Your task to perform on an android device: Go to Yahoo.com Image 0: 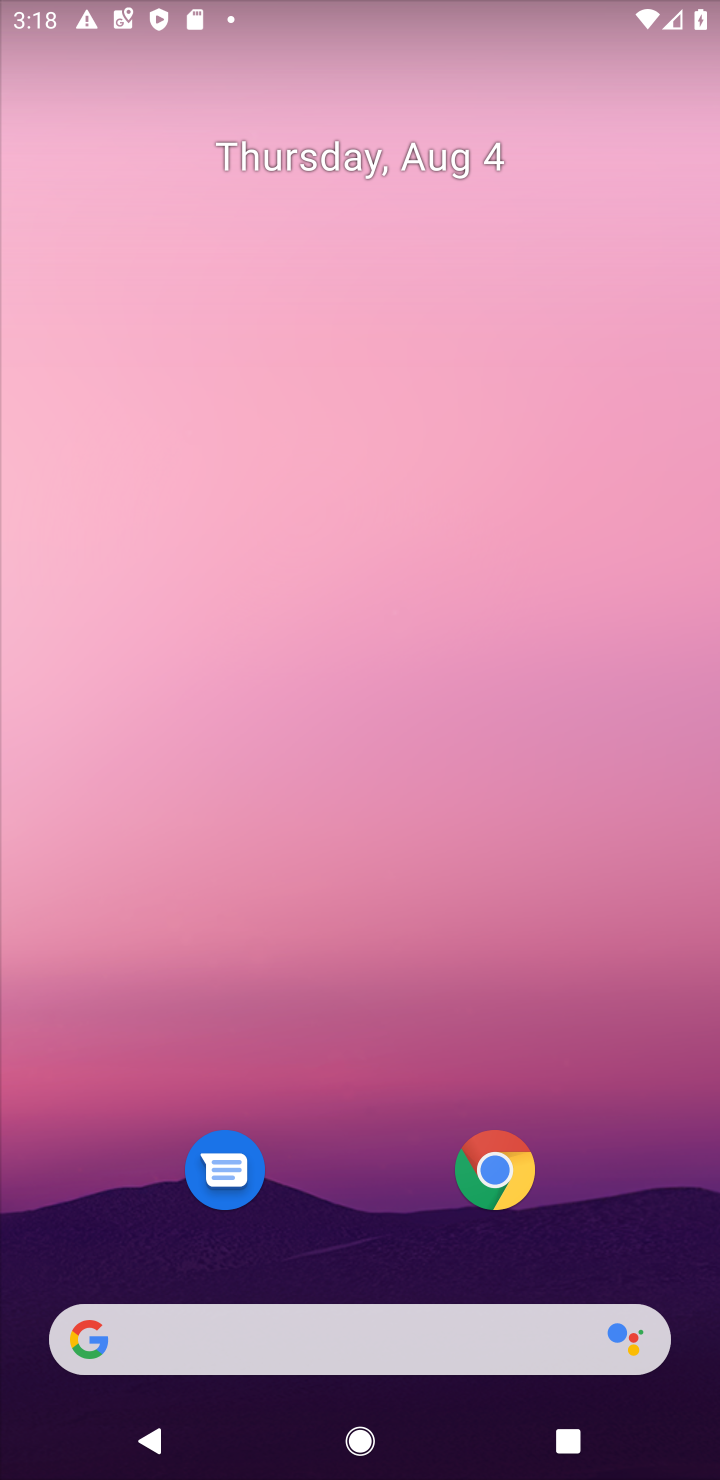
Step 0: click (499, 1164)
Your task to perform on an android device: Go to Yahoo.com Image 1: 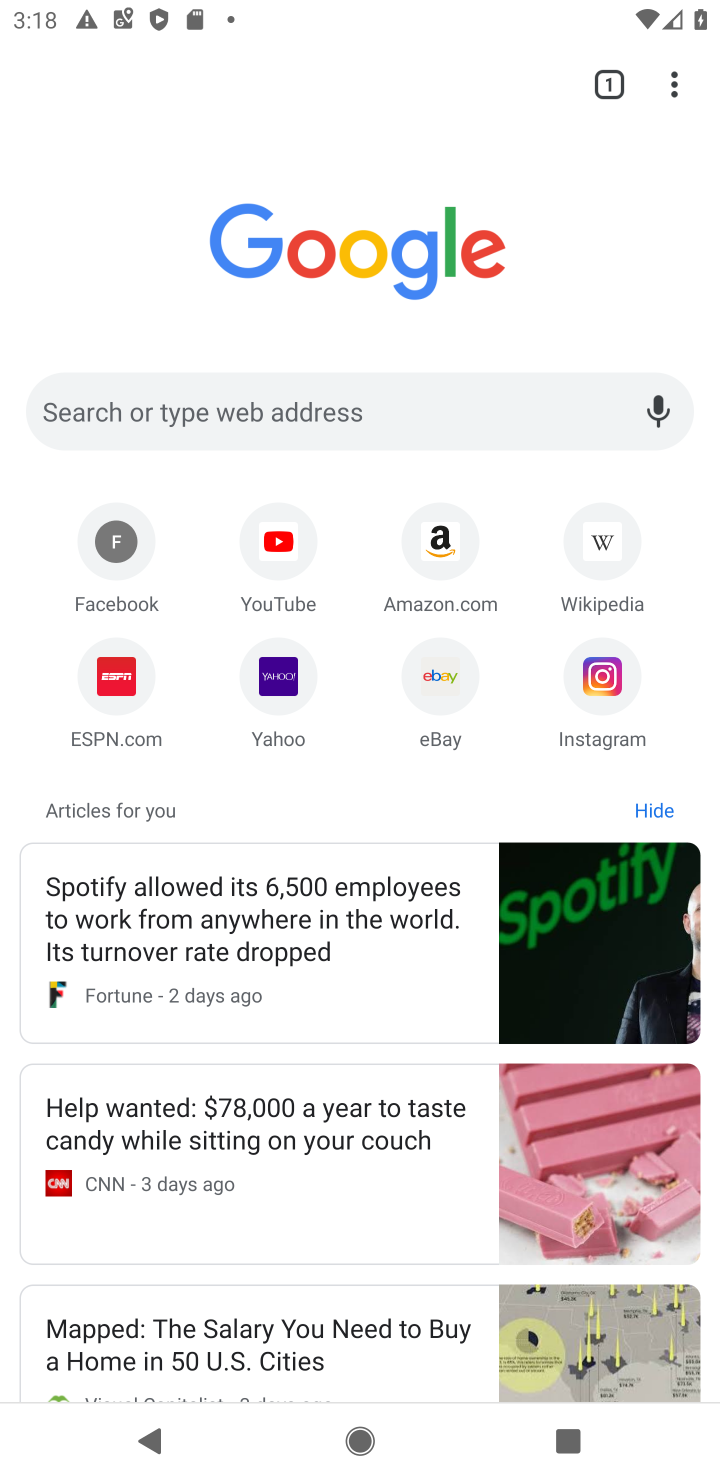
Step 1: click (262, 407)
Your task to perform on an android device: Go to Yahoo.com Image 2: 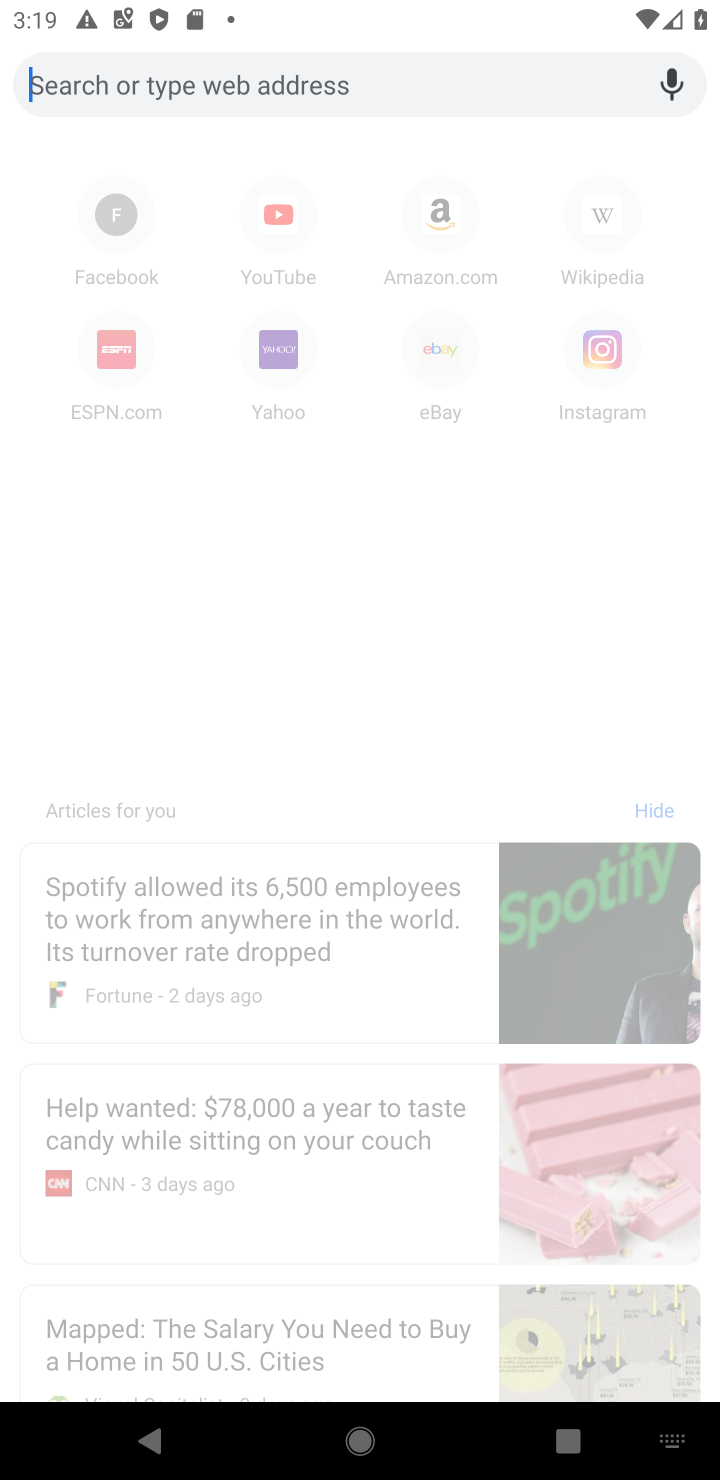
Step 2: type "yahoo.com"
Your task to perform on an android device: Go to Yahoo.com Image 3: 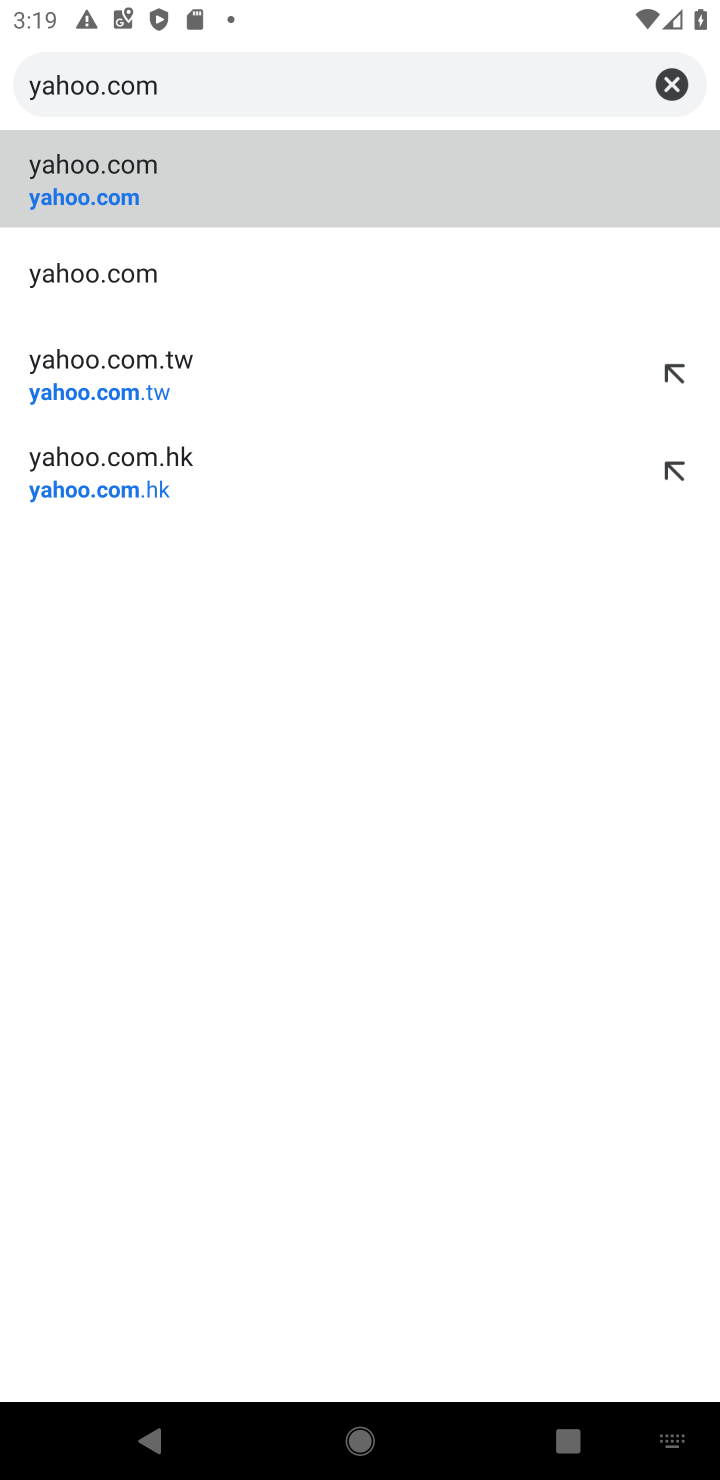
Step 3: click (78, 145)
Your task to perform on an android device: Go to Yahoo.com Image 4: 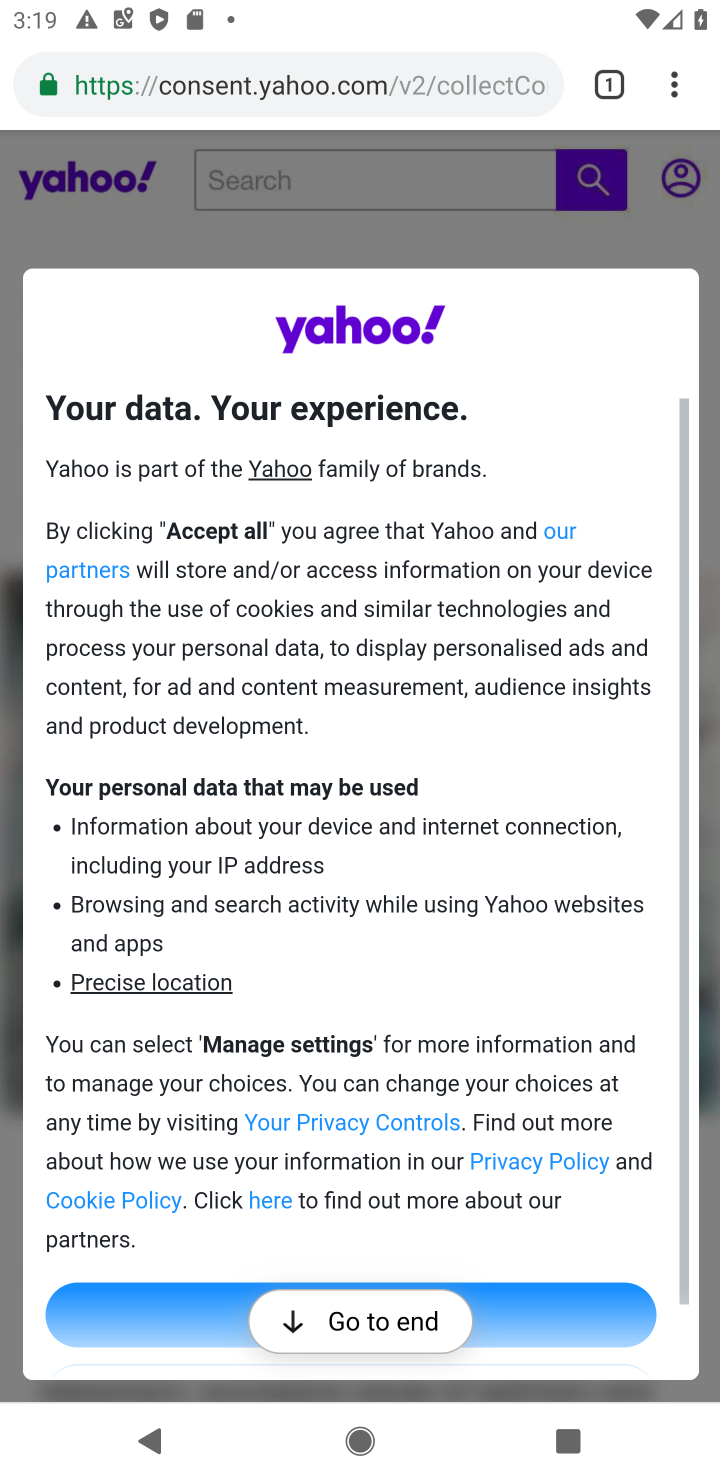
Step 4: click (284, 1317)
Your task to perform on an android device: Go to Yahoo.com Image 5: 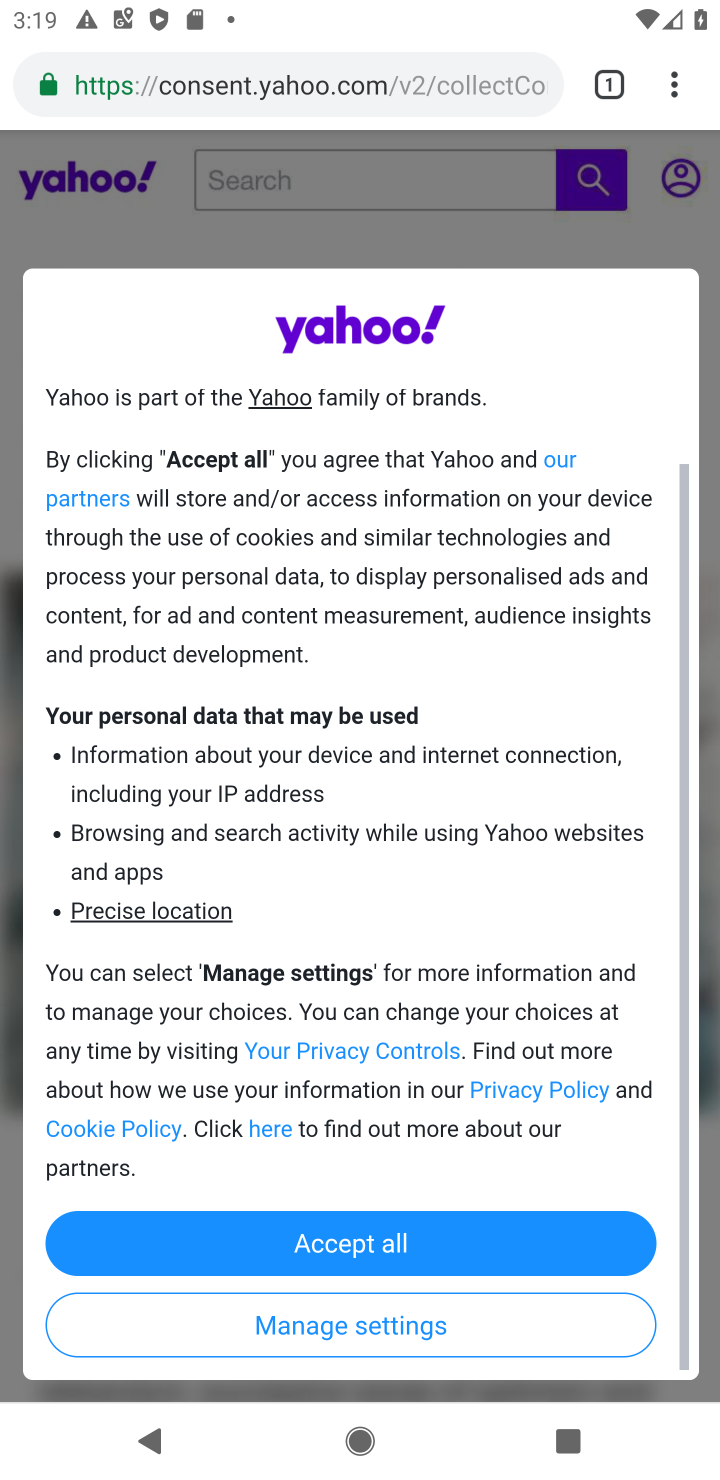
Step 5: click (348, 1231)
Your task to perform on an android device: Go to Yahoo.com Image 6: 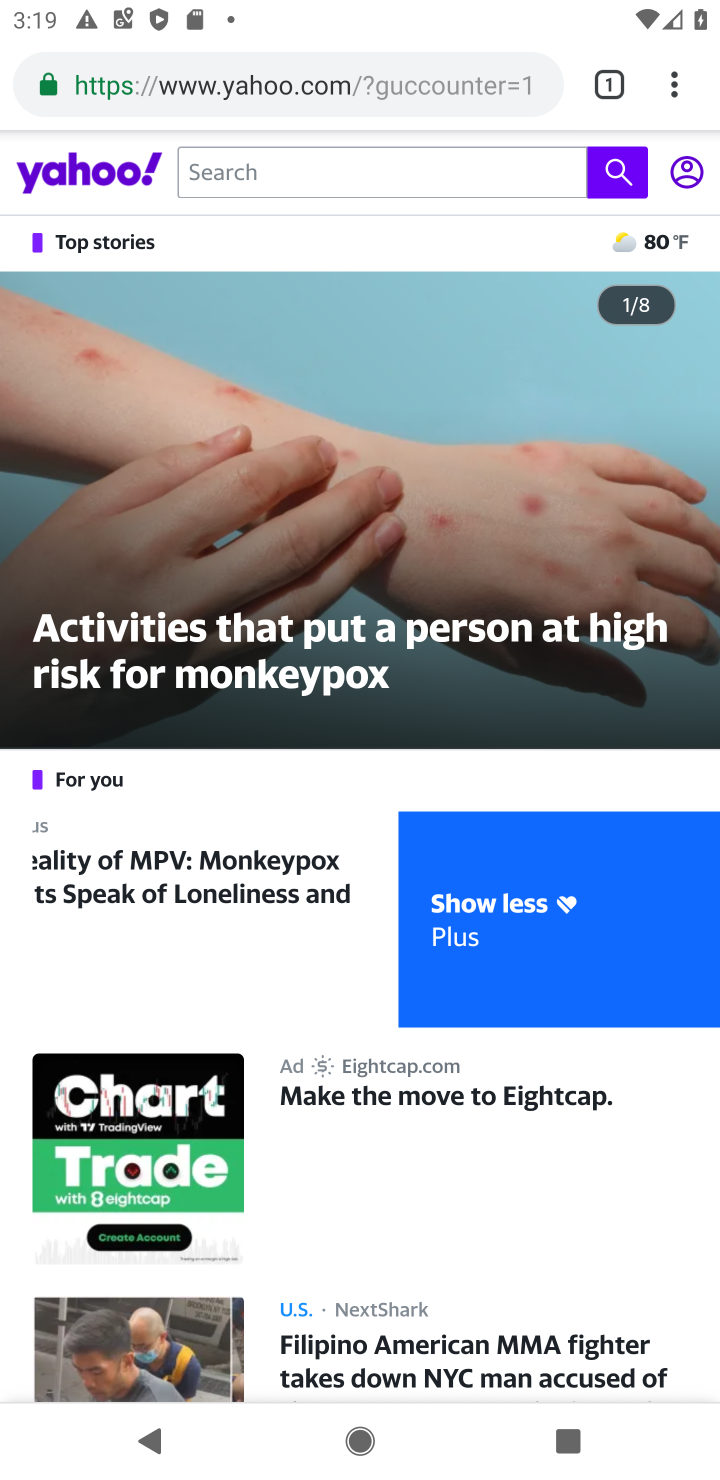
Step 6: task complete